Your task to perform on an android device: Open privacy settings Image 0: 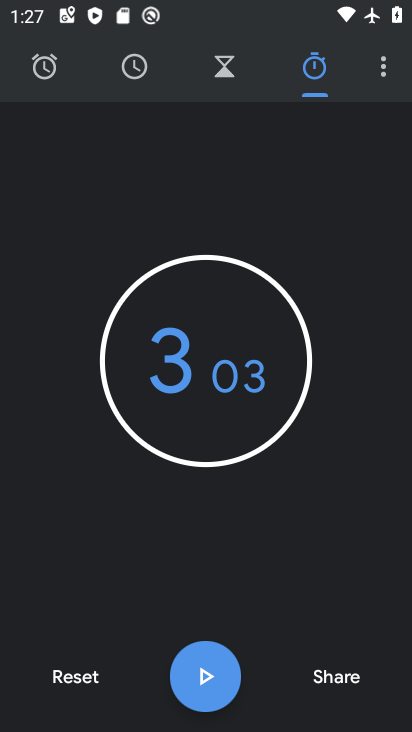
Step 0: press home button
Your task to perform on an android device: Open privacy settings Image 1: 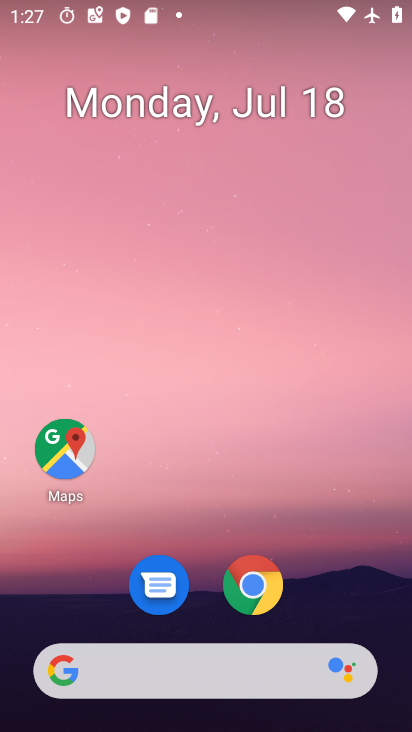
Step 1: drag from (218, 659) to (328, 75)
Your task to perform on an android device: Open privacy settings Image 2: 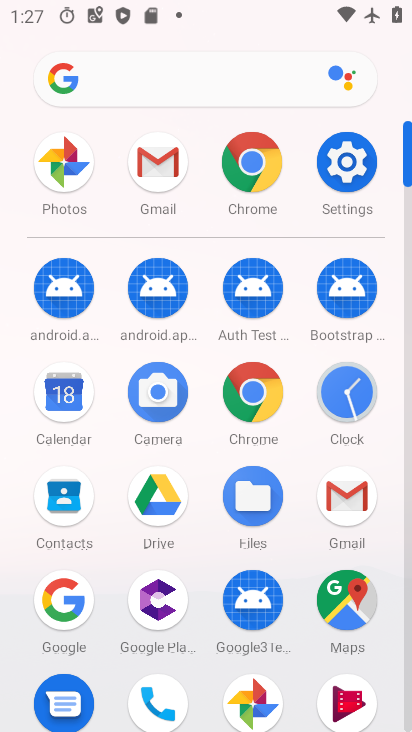
Step 2: click (345, 180)
Your task to perform on an android device: Open privacy settings Image 3: 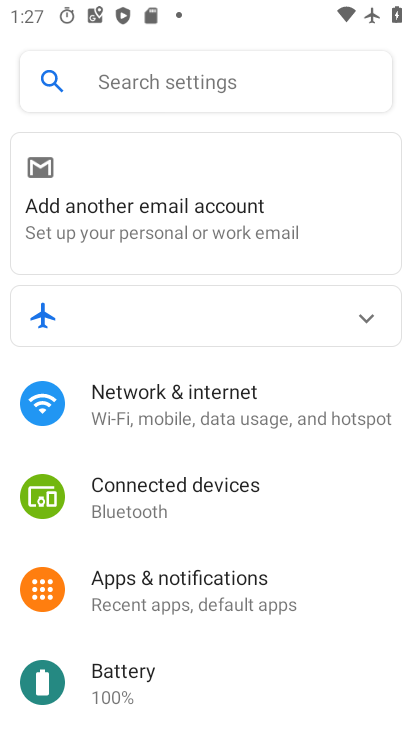
Step 3: drag from (231, 630) to (314, 169)
Your task to perform on an android device: Open privacy settings Image 4: 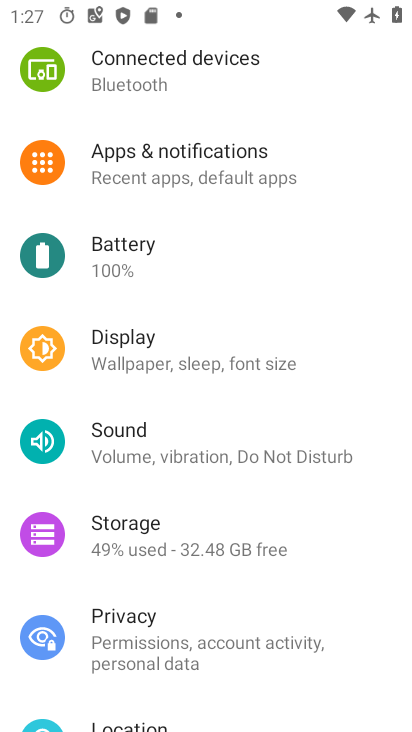
Step 4: click (133, 617)
Your task to perform on an android device: Open privacy settings Image 5: 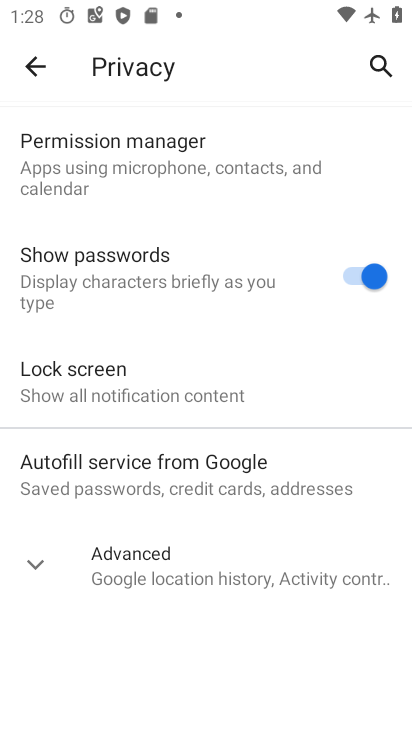
Step 5: task complete